Your task to perform on an android device: check battery use Image 0: 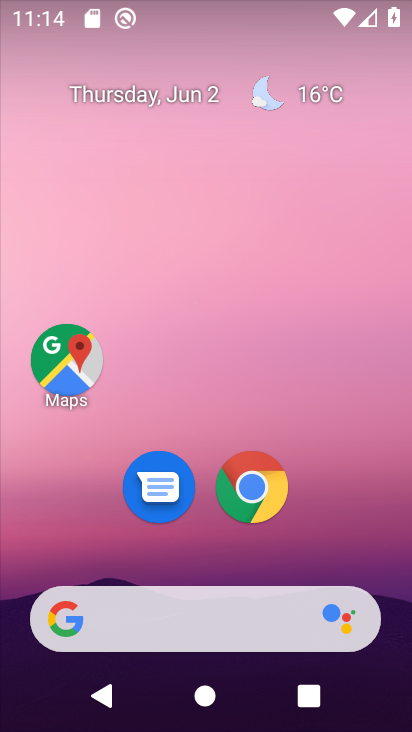
Step 0: drag from (341, 529) to (284, 65)
Your task to perform on an android device: check battery use Image 1: 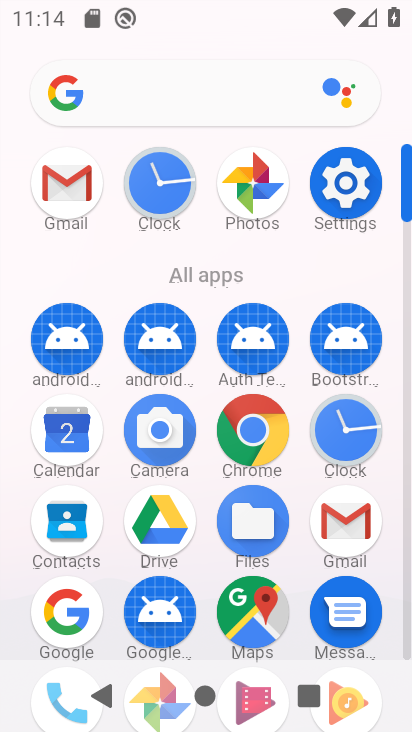
Step 1: click (345, 432)
Your task to perform on an android device: check battery use Image 2: 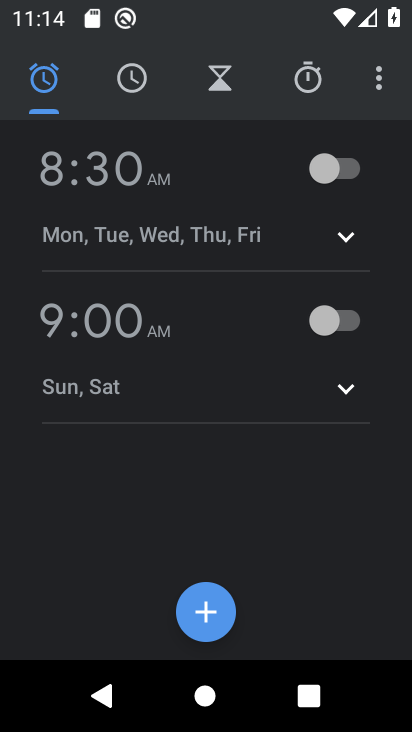
Step 2: press back button
Your task to perform on an android device: check battery use Image 3: 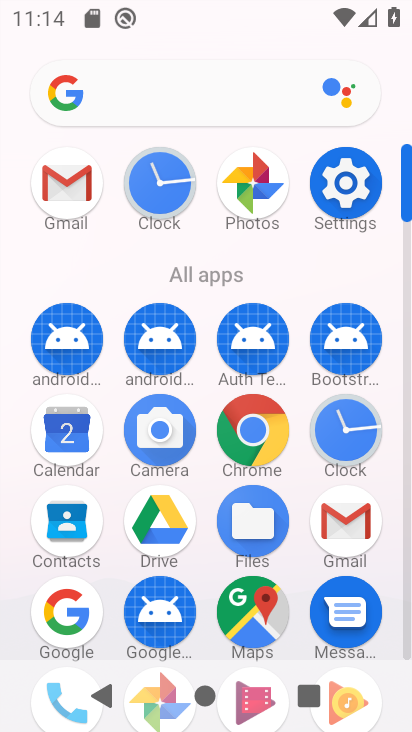
Step 3: click (344, 183)
Your task to perform on an android device: check battery use Image 4: 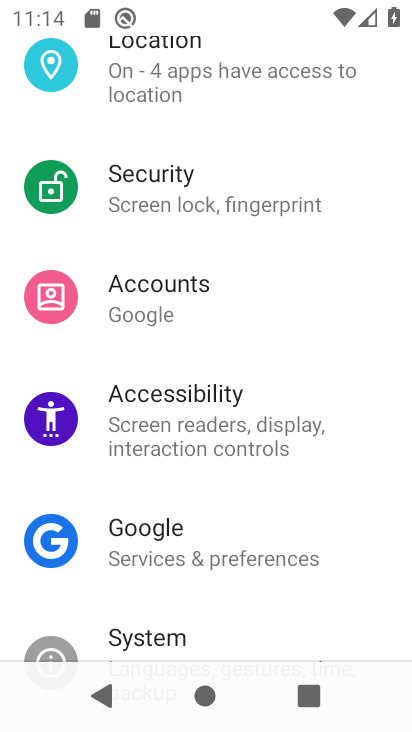
Step 4: drag from (219, 354) to (238, 448)
Your task to perform on an android device: check battery use Image 5: 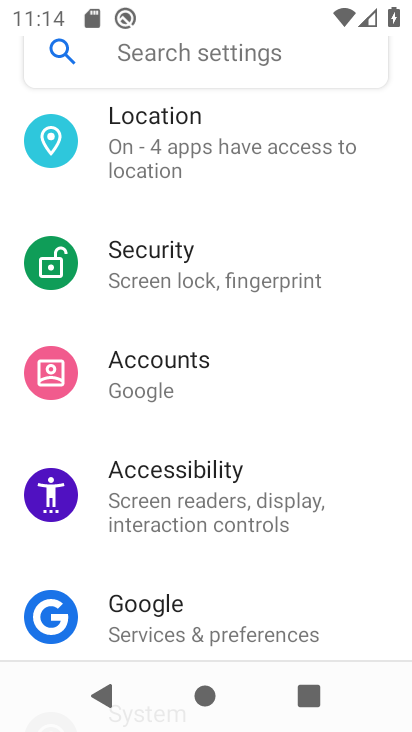
Step 5: drag from (241, 326) to (273, 424)
Your task to perform on an android device: check battery use Image 6: 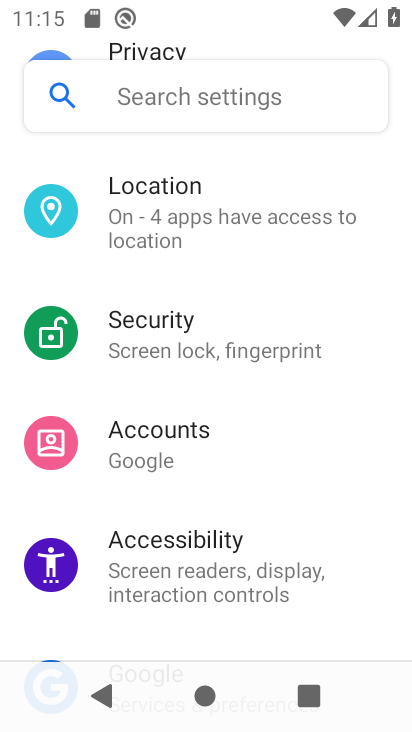
Step 6: drag from (227, 278) to (225, 362)
Your task to perform on an android device: check battery use Image 7: 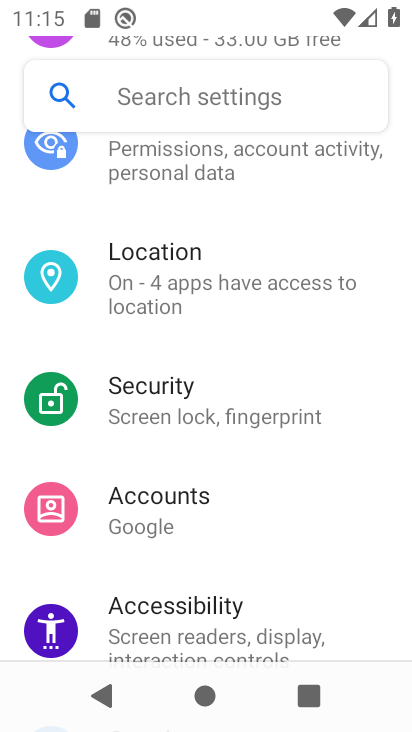
Step 7: drag from (225, 223) to (232, 339)
Your task to perform on an android device: check battery use Image 8: 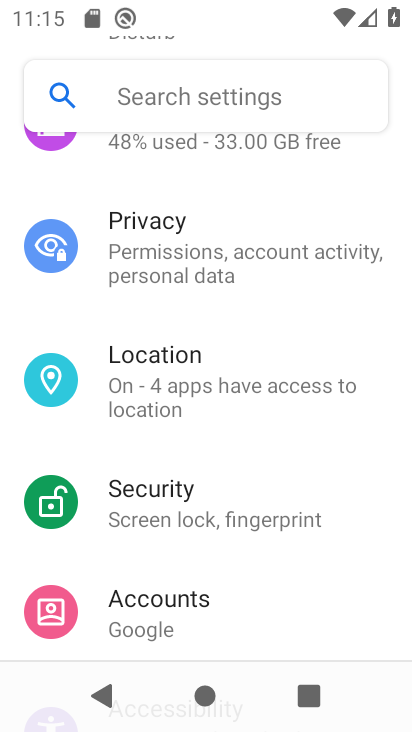
Step 8: drag from (239, 310) to (247, 407)
Your task to perform on an android device: check battery use Image 9: 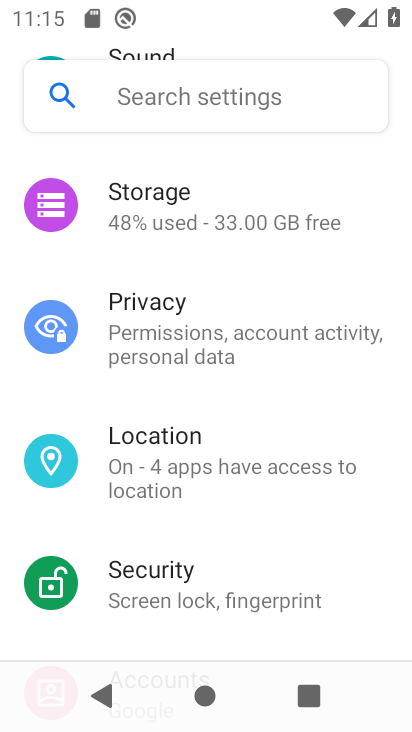
Step 9: drag from (233, 265) to (265, 381)
Your task to perform on an android device: check battery use Image 10: 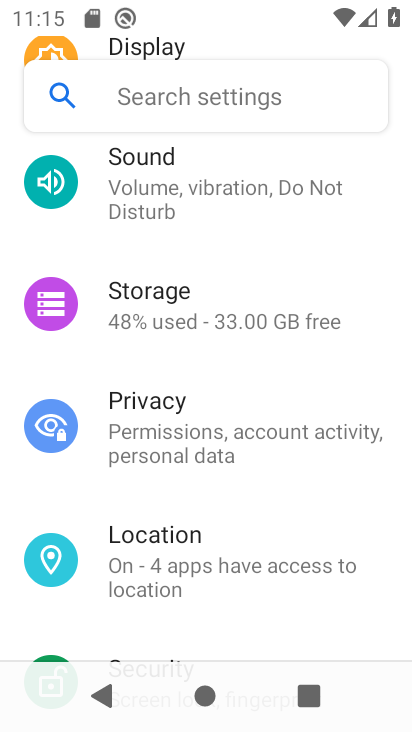
Step 10: drag from (212, 255) to (246, 355)
Your task to perform on an android device: check battery use Image 11: 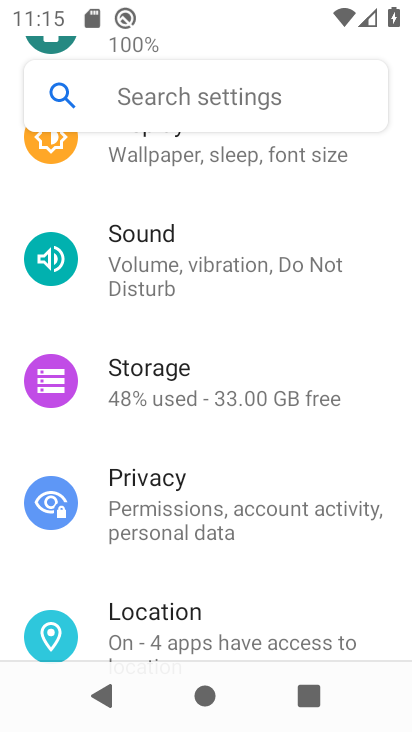
Step 11: drag from (215, 227) to (258, 332)
Your task to perform on an android device: check battery use Image 12: 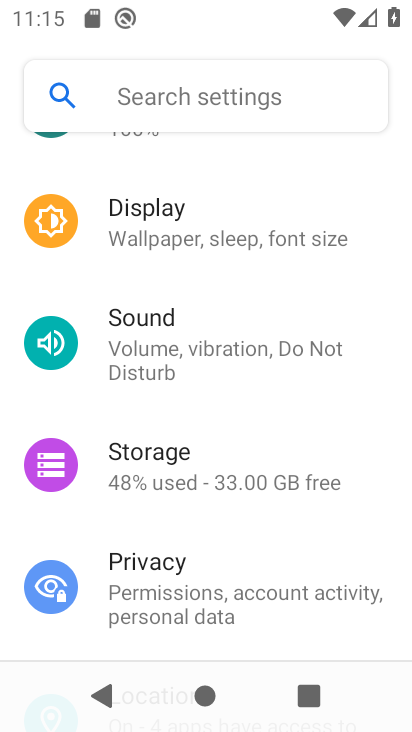
Step 12: drag from (228, 187) to (291, 318)
Your task to perform on an android device: check battery use Image 13: 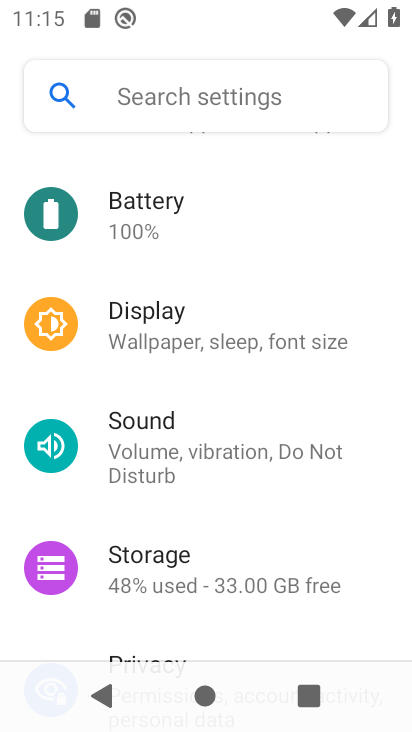
Step 13: click (173, 199)
Your task to perform on an android device: check battery use Image 14: 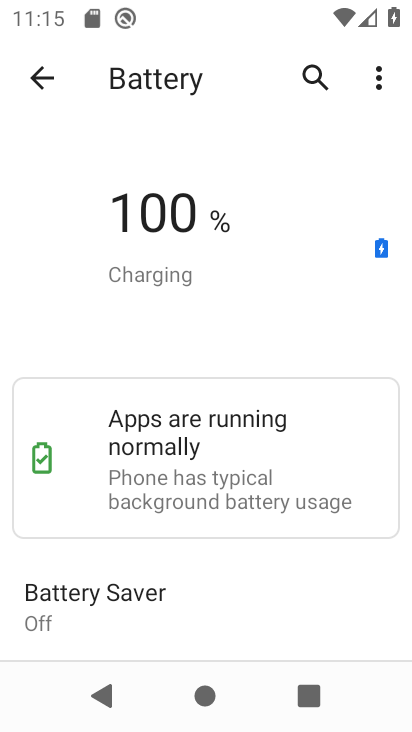
Step 14: click (375, 77)
Your task to perform on an android device: check battery use Image 15: 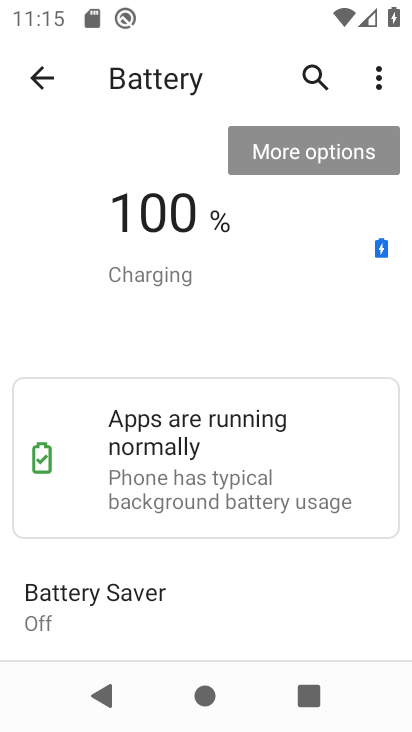
Step 15: click (375, 77)
Your task to perform on an android device: check battery use Image 16: 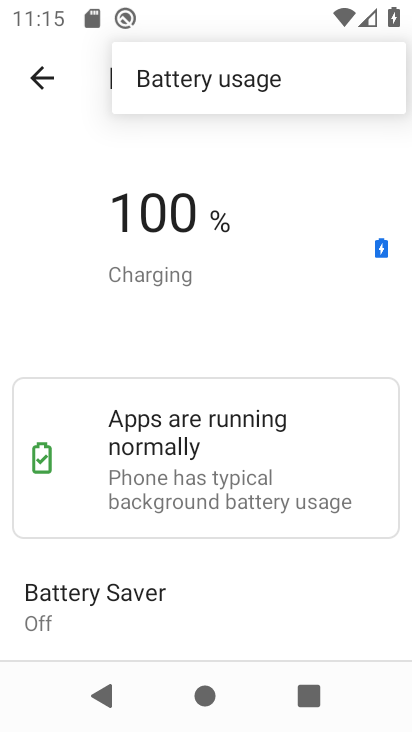
Step 16: click (230, 84)
Your task to perform on an android device: check battery use Image 17: 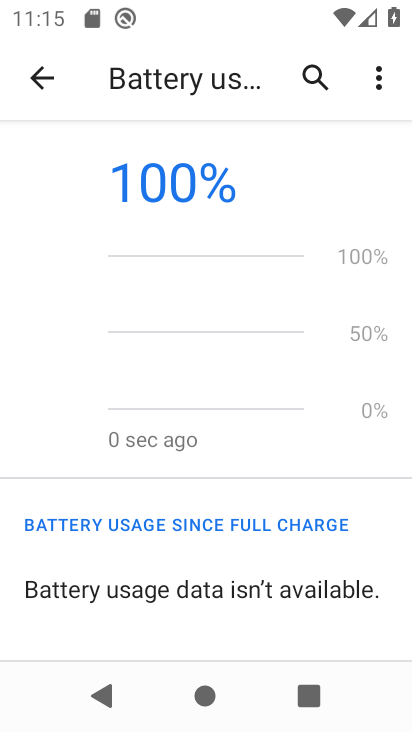
Step 17: task complete